Your task to perform on an android device: turn off notifications in google photos Image 0: 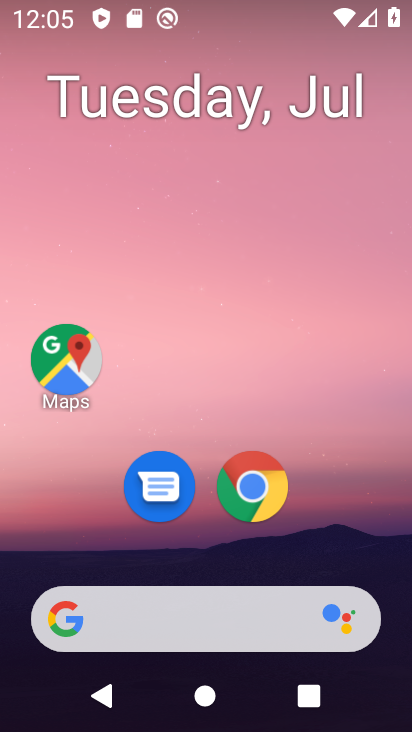
Step 0: drag from (357, 533) to (359, 96)
Your task to perform on an android device: turn off notifications in google photos Image 1: 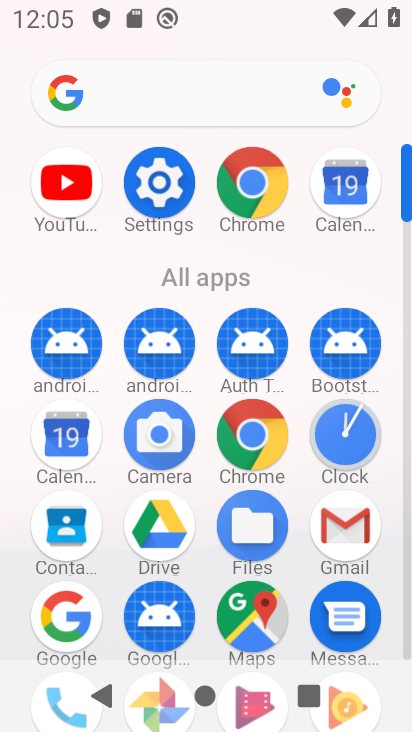
Step 1: drag from (387, 576) to (389, 661)
Your task to perform on an android device: turn off notifications in google photos Image 2: 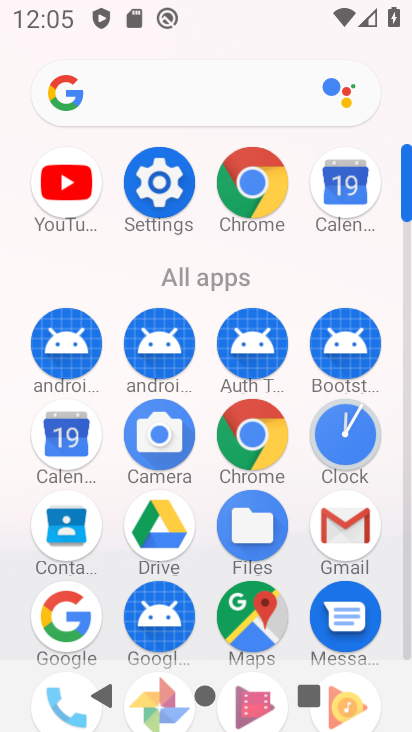
Step 2: drag from (385, 571) to (395, 317)
Your task to perform on an android device: turn off notifications in google photos Image 3: 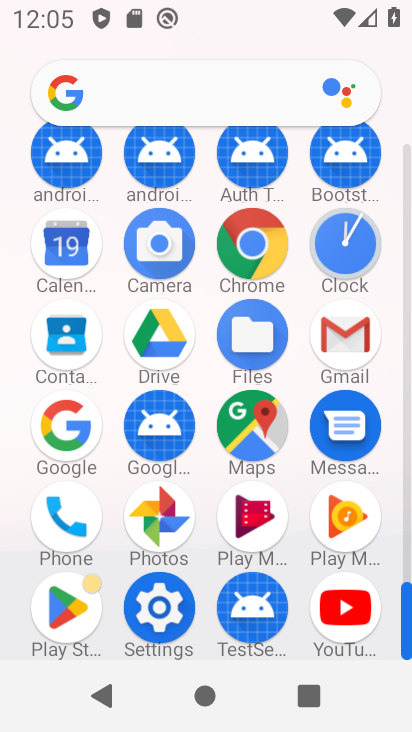
Step 3: click (157, 610)
Your task to perform on an android device: turn off notifications in google photos Image 4: 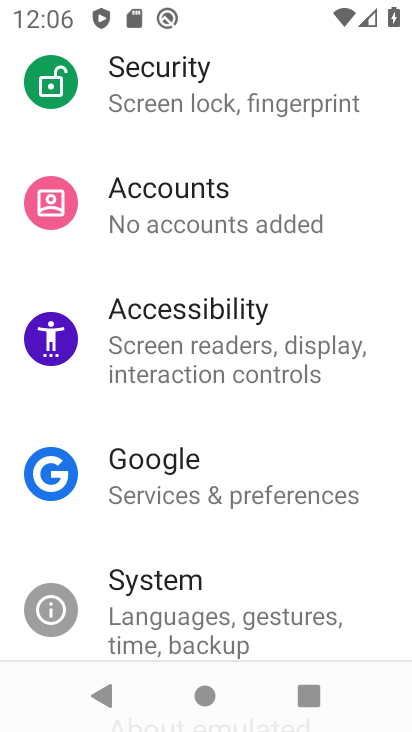
Step 4: drag from (347, 566) to (359, 402)
Your task to perform on an android device: turn off notifications in google photos Image 5: 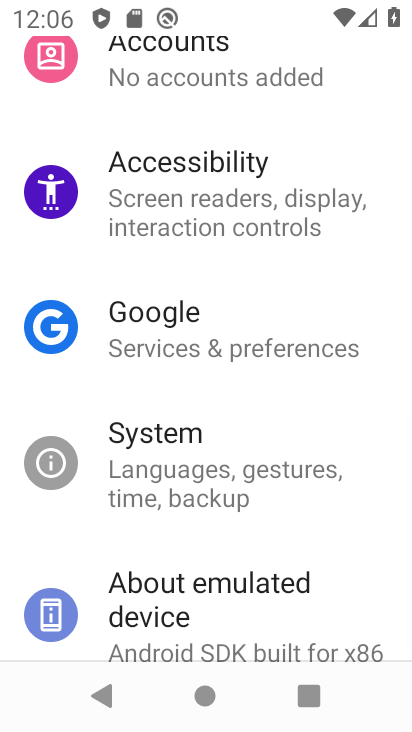
Step 5: drag from (360, 548) to (363, 371)
Your task to perform on an android device: turn off notifications in google photos Image 6: 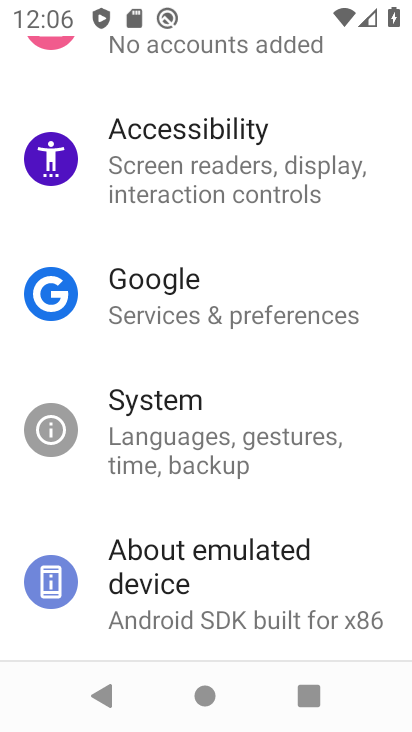
Step 6: drag from (386, 288) to (383, 400)
Your task to perform on an android device: turn off notifications in google photos Image 7: 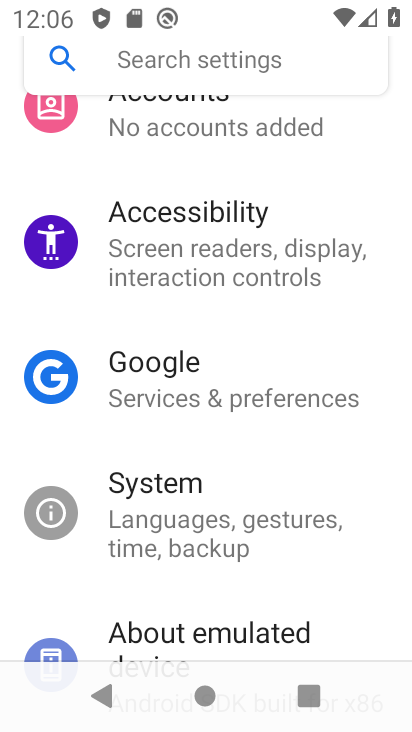
Step 7: press home button
Your task to perform on an android device: turn off notifications in google photos Image 8: 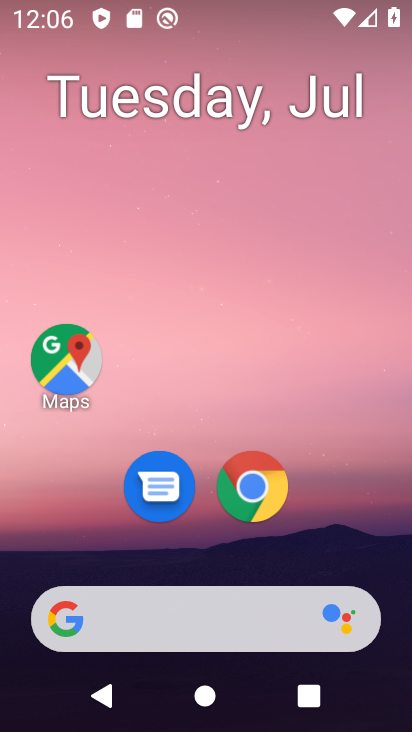
Step 8: drag from (340, 433) to (346, 102)
Your task to perform on an android device: turn off notifications in google photos Image 9: 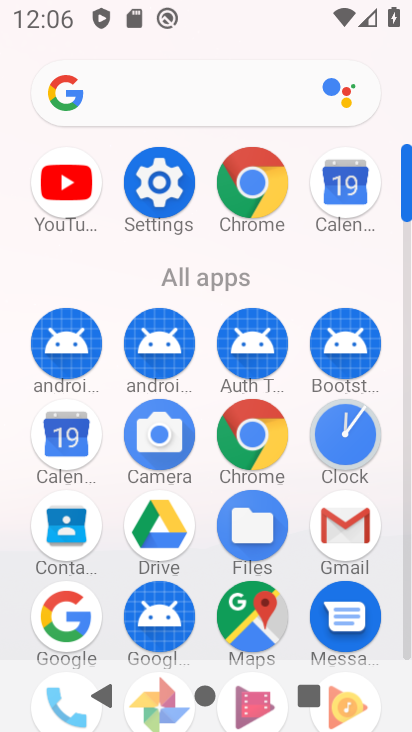
Step 9: drag from (386, 559) to (399, 319)
Your task to perform on an android device: turn off notifications in google photos Image 10: 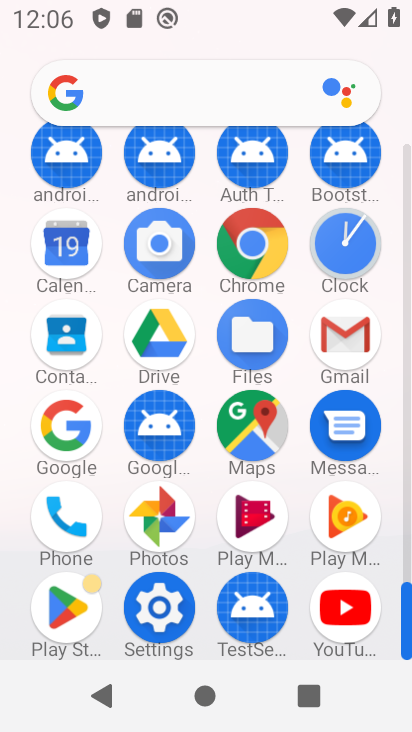
Step 10: click (173, 527)
Your task to perform on an android device: turn off notifications in google photos Image 11: 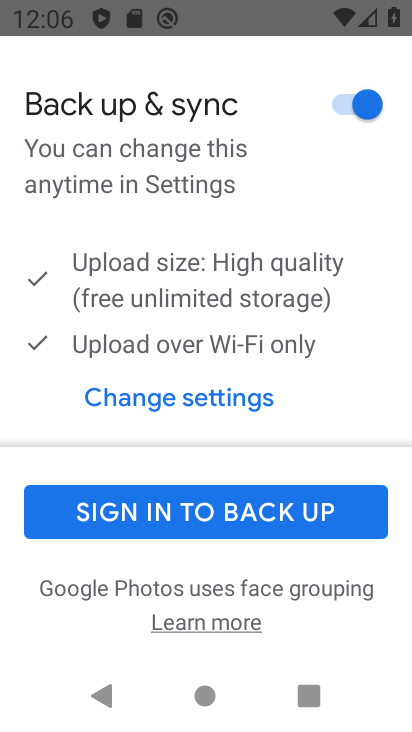
Step 11: task complete